Your task to perform on an android device: change the clock display to digital Image 0: 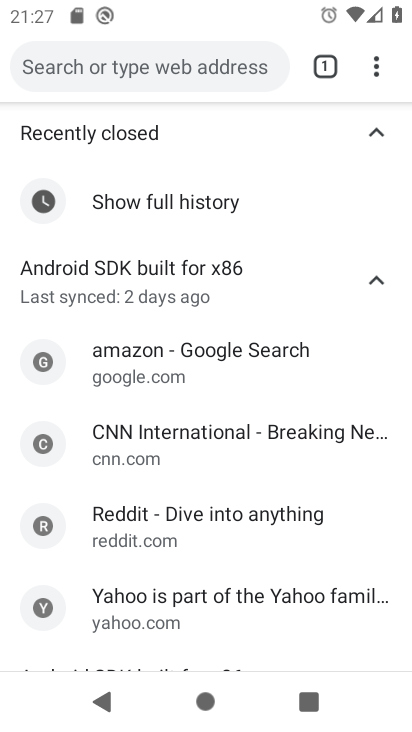
Step 0: press home button
Your task to perform on an android device: change the clock display to digital Image 1: 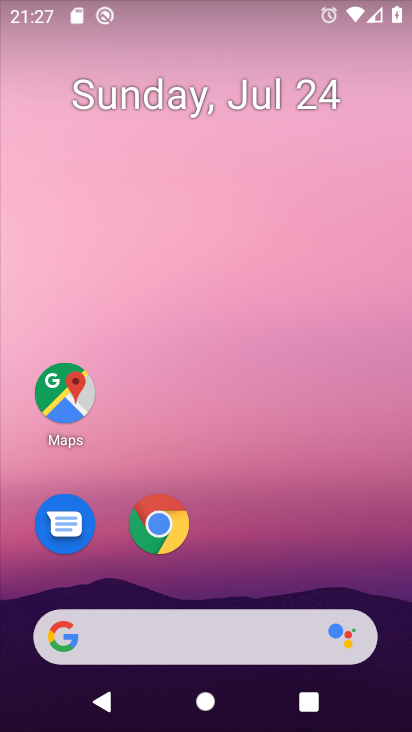
Step 1: drag from (244, 575) to (266, 51)
Your task to perform on an android device: change the clock display to digital Image 2: 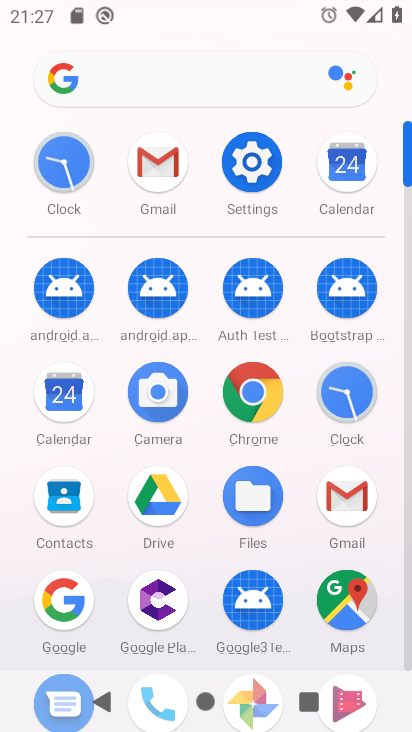
Step 2: click (76, 161)
Your task to perform on an android device: change the clock display to digital Image 3: 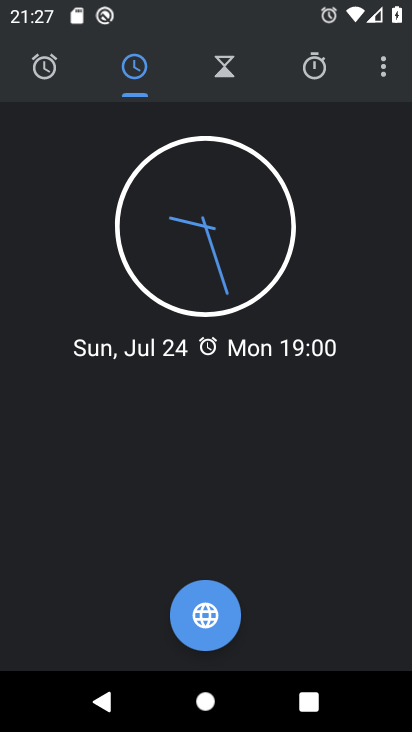
Step 3: click (377, 66)
Your task to perform on an android device: change the clock display to digital Image 4: 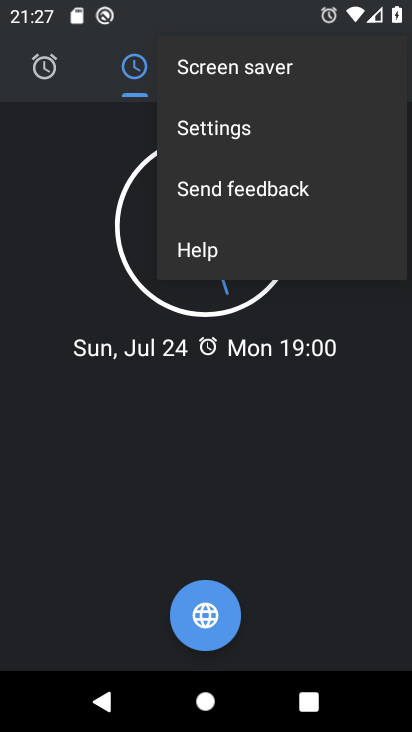
Step 4: click (260, 132)
Your task to perform on an android device: change the clock display to digital Image 5: 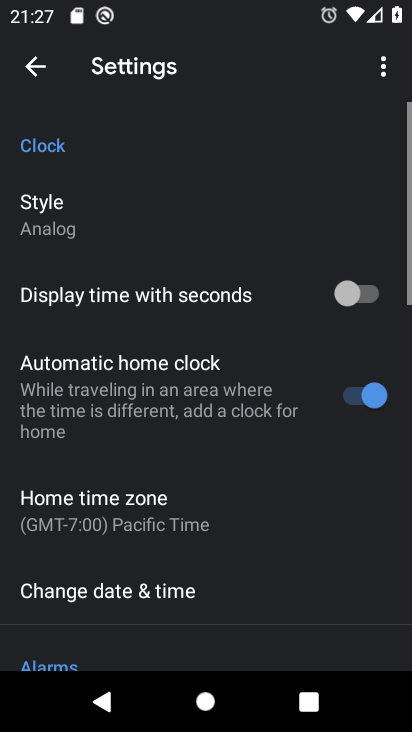
Step 5: click (74, 230)
Your task to perform on an android device: change the clock display to digital Image 6: 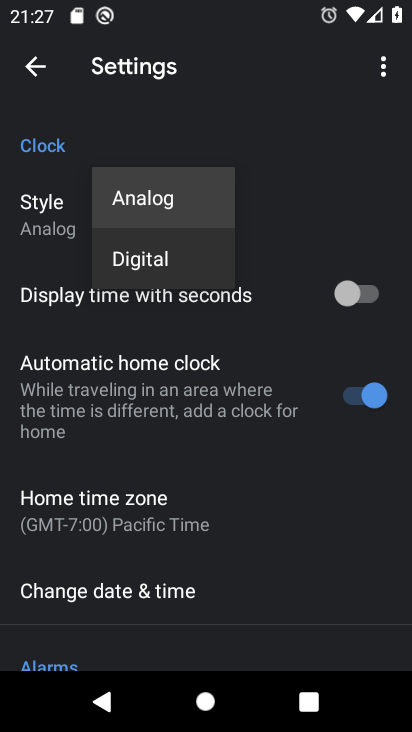
Step 6: click (130, 262)
Your task to perform on an android device: change the clock display to digital Image 7: 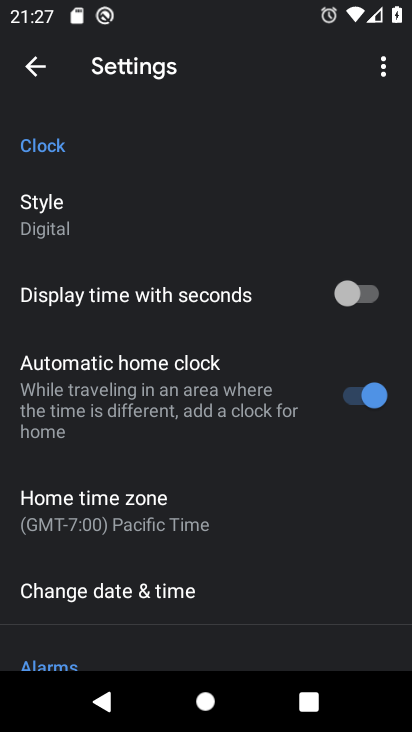
Step 7: click (37, 61)
Your task to perform on an android device: change the clock display to digital Image 8: 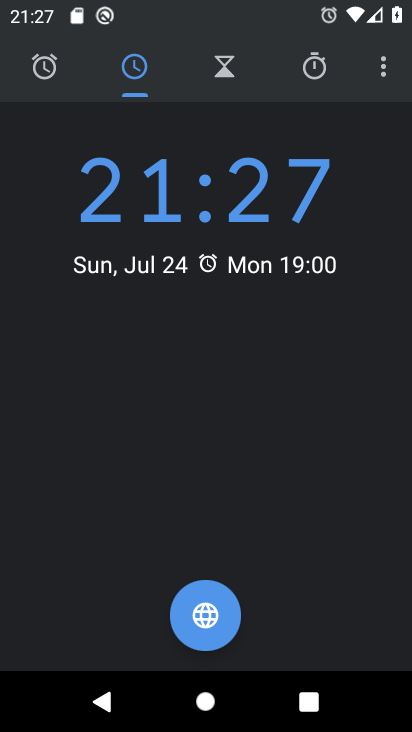
Step 8: task complete